Your task to perform on an android device: check android version Image 0: 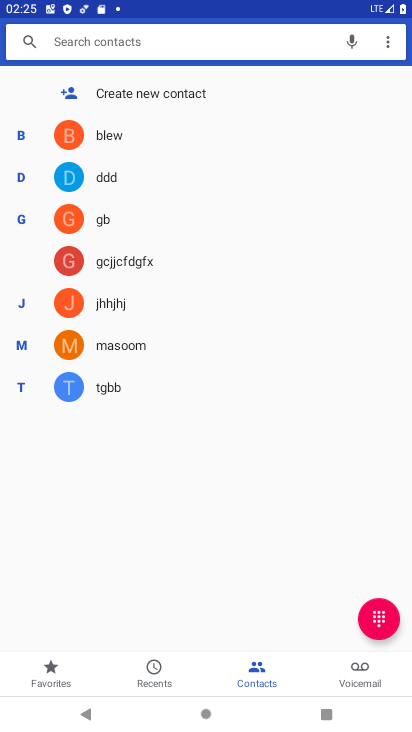
Step 0: press home button
Your task to perform on an android device: check android version Image 1: 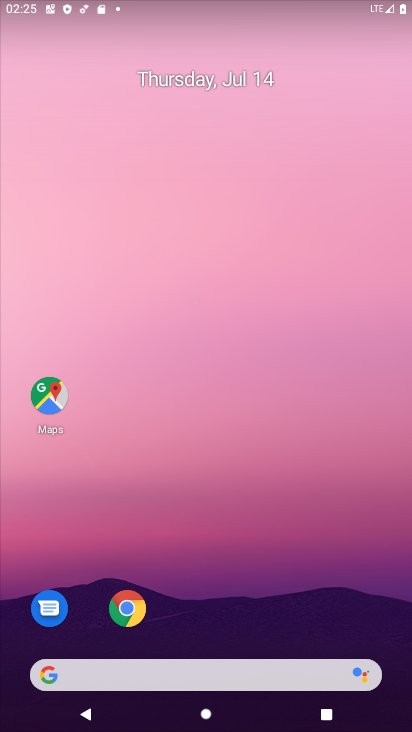
Step 1: drag from (55, 545) to (404, 5)
Your task to perform on an android device: check android version Image 2: 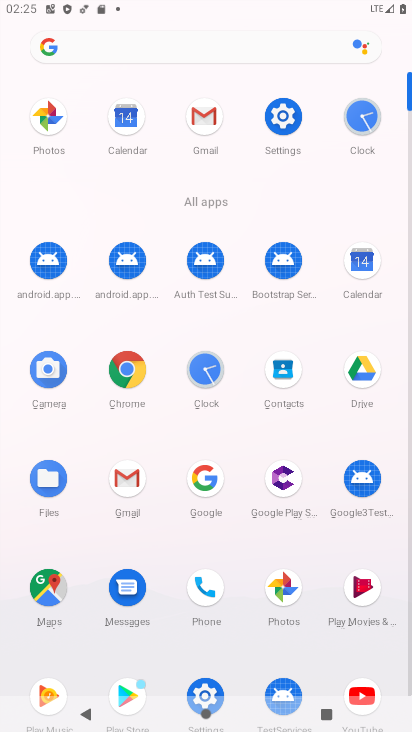
Step 2: click (279, 115)
Your task to perform on an android device: check android version Image 3: 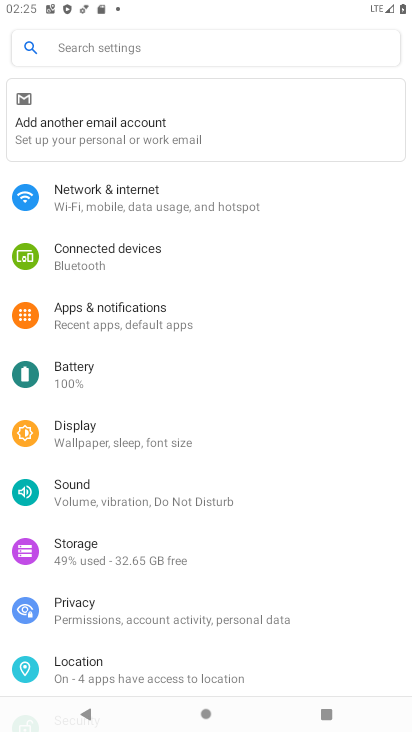
Step 3: drag from (141, 716) to (364, 122)
Your task to perform on an android device: check android version Image 4: 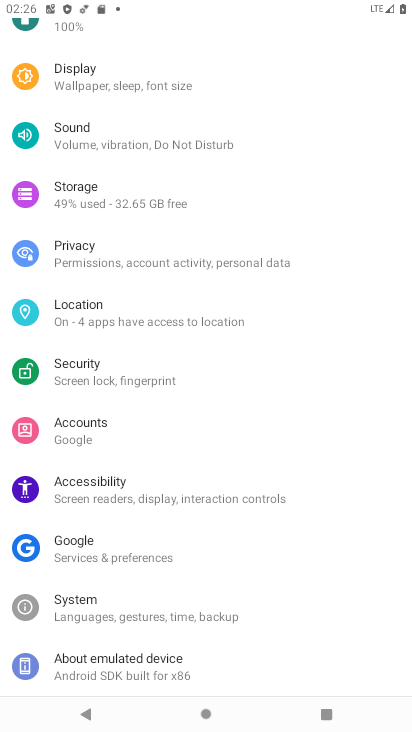
Step 4: click (125, 659)
Your task to perform on an android device: check android version Image 5: 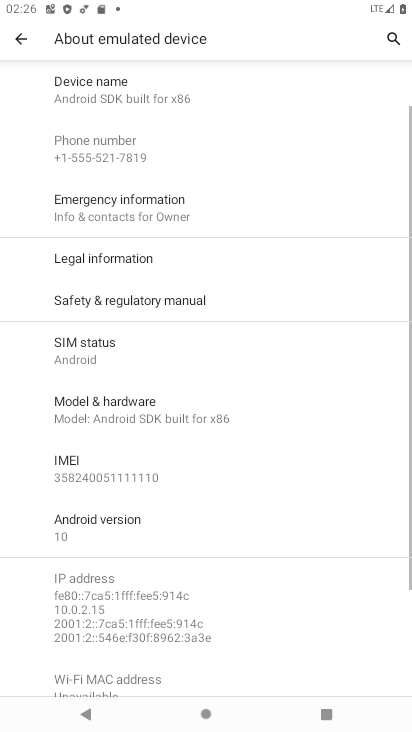
Step 5: click (103, 530)
Your task to perform on an android device: check android version Image 6: 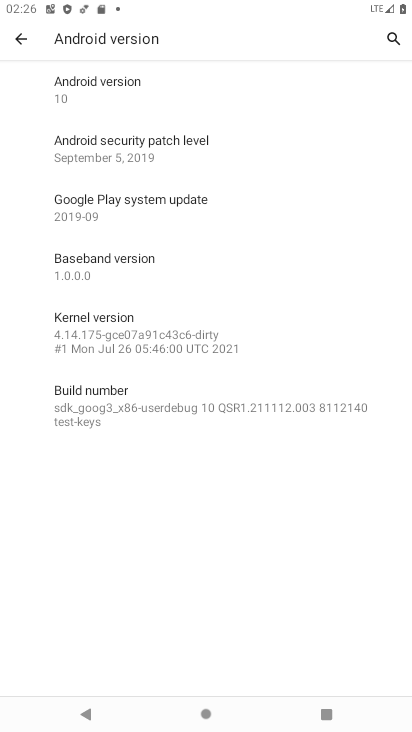
Step 6: click (112, 89)
Your task to perform on an android device: check android version Image 7: 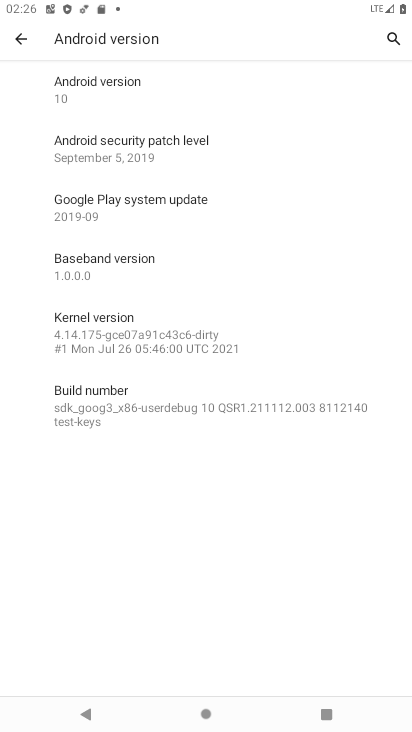
Step 7: task complete